Your task to perform on an android device: turn off sleep mode Image 0: 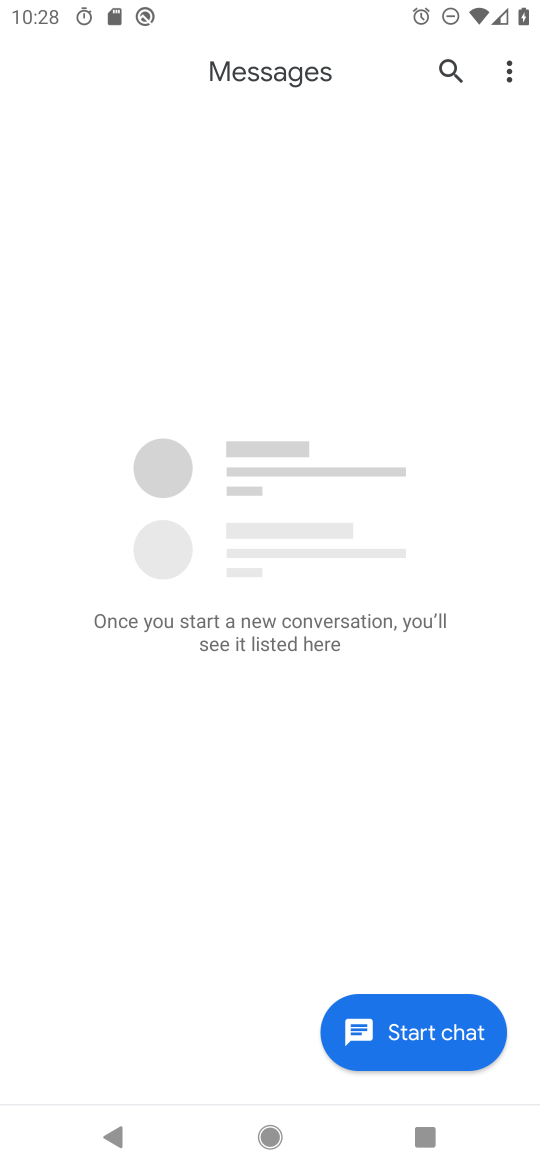
Step 0: press home button
Your task to perform on an android device: turn off sleep mode Image 1: 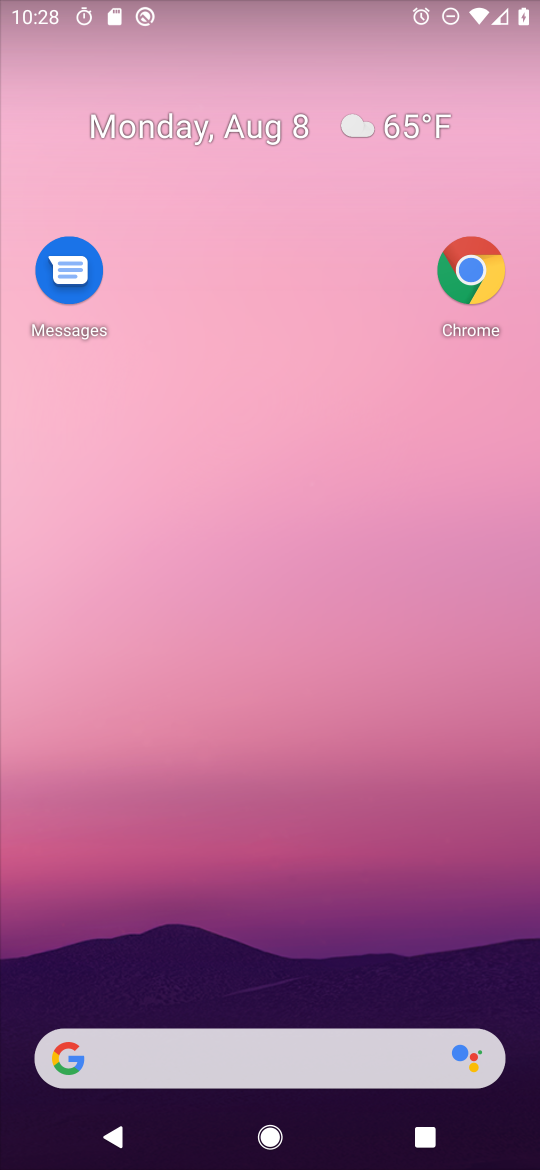
Step 1: drag from (245, 445) to (238, 343)
Your task to perform on an android device: turn off sleep mode Image 2: 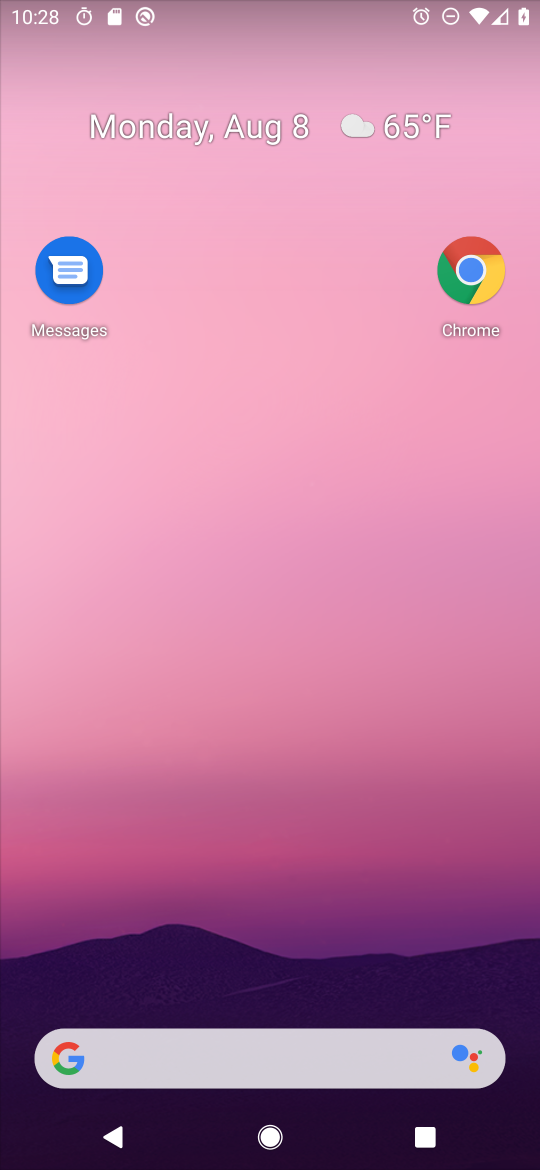
Step 2: drag from (319, 1017) to (412, 99)
Your task to perform on an android device: turn off sleep mode Image 3: 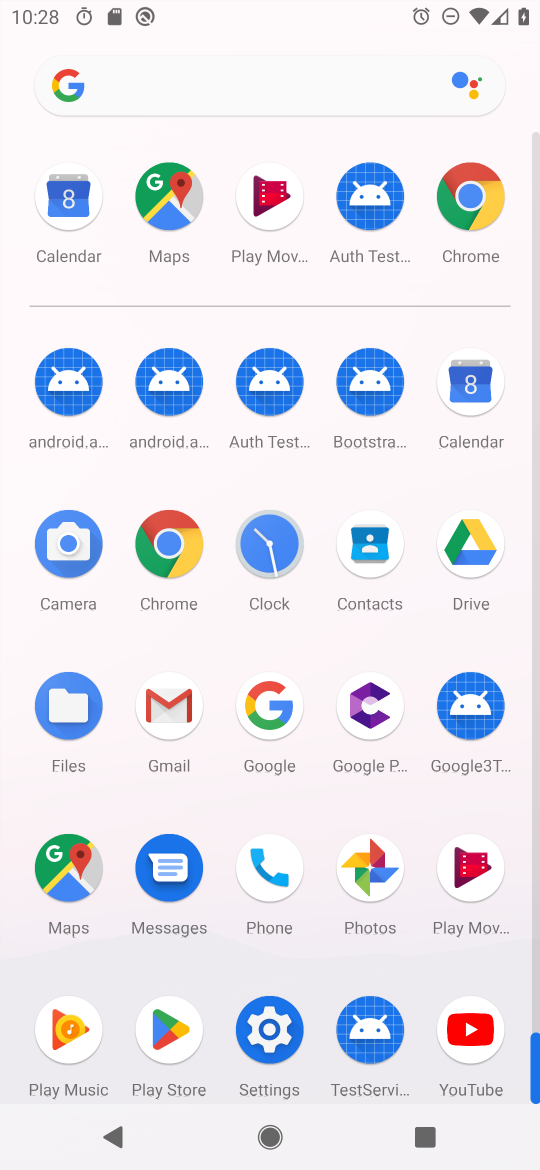
Step 3: click (265, 1027)
Your task to perform on an android device: turn off sleep mode Image 4: 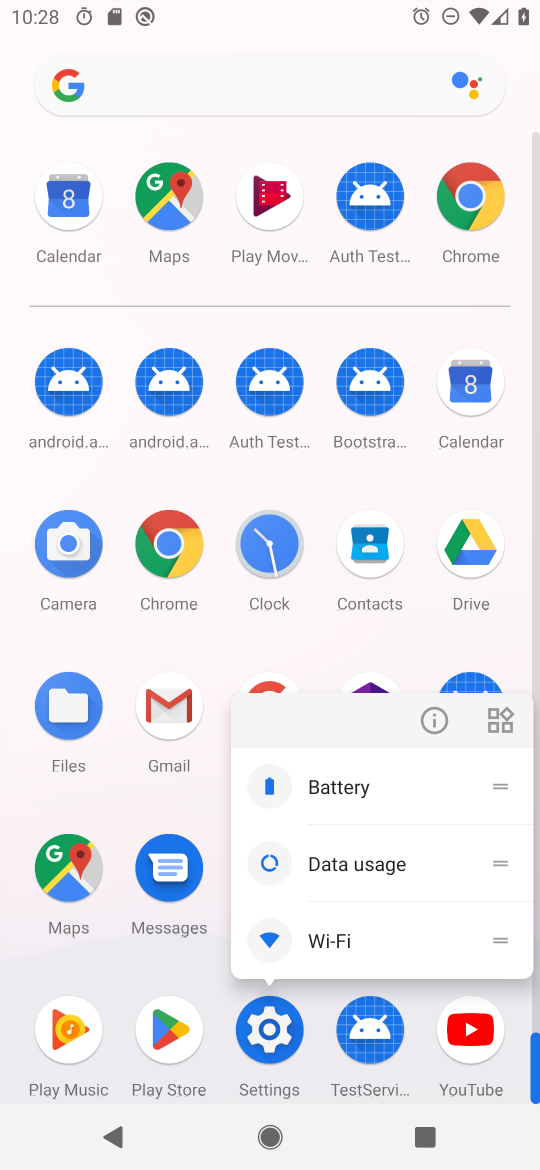
Step 4: click (435, 724)
Your task to perform on an android device: turn off sleep mode Image 5: 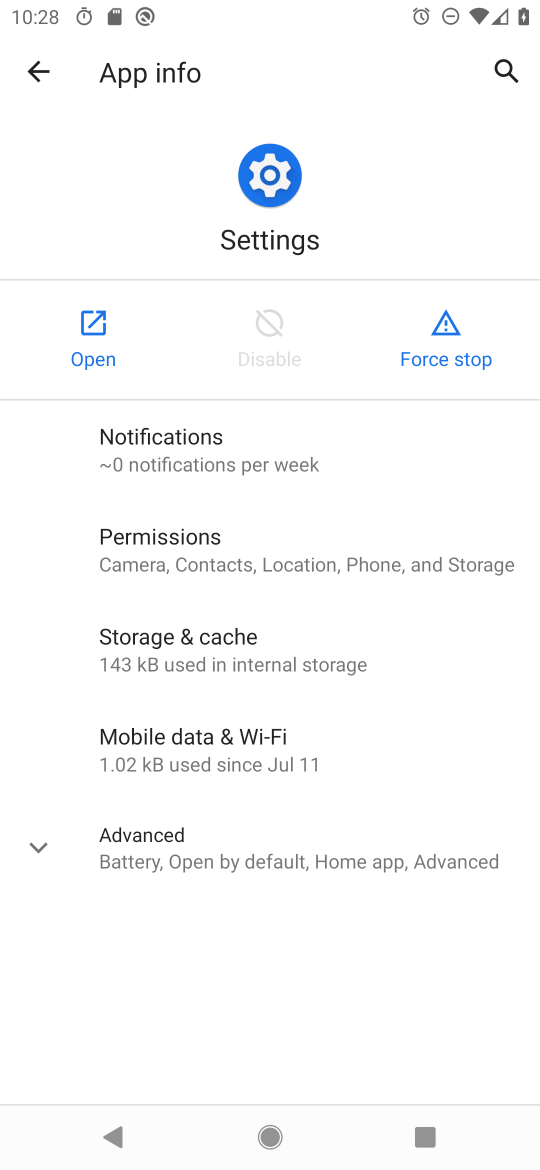
Step 5: click (103, 300)
Your task to perform on an android device: turn off sleep mode Image 6: 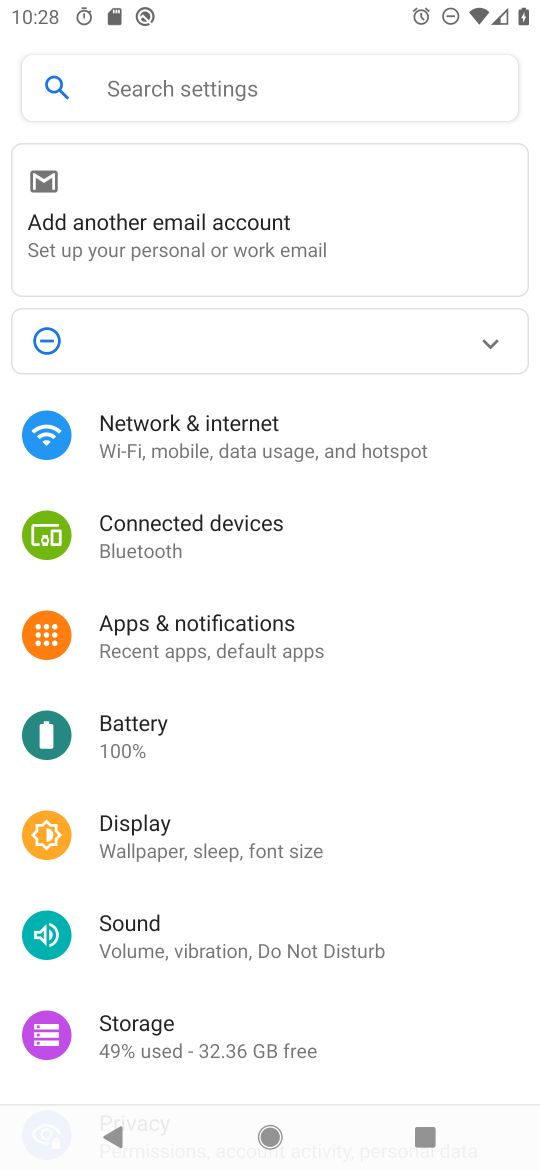
Step 6: drag from (254, 953) to (404, 324)
Your task to perform on an android device: turn off sleep mode Image 7: 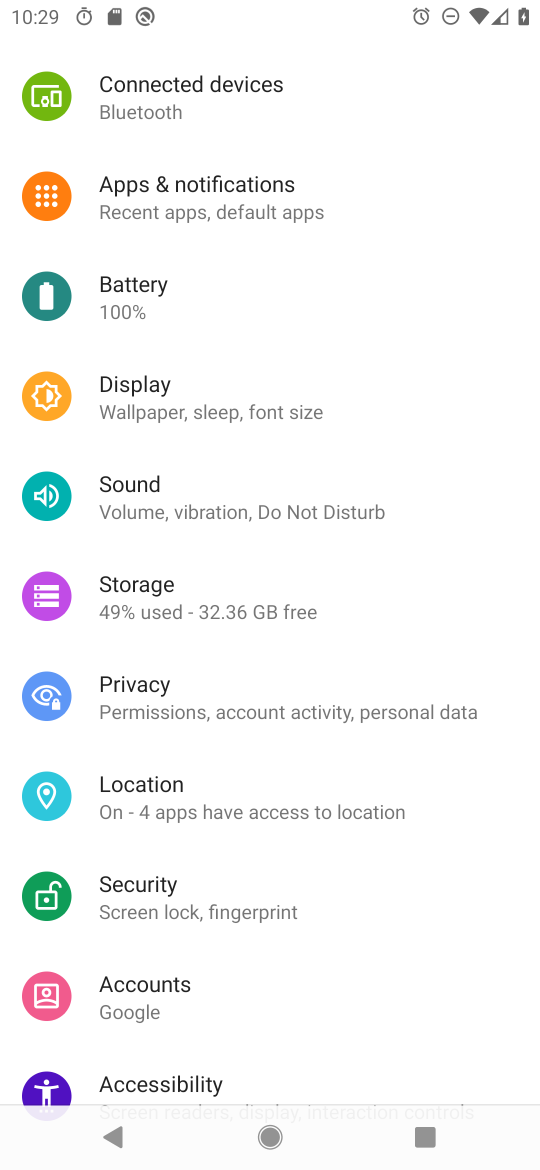
Step 7: drag from (252, 904) to (290, 576)
Your task to perform on an android device: turn off sleep mode Image 8: 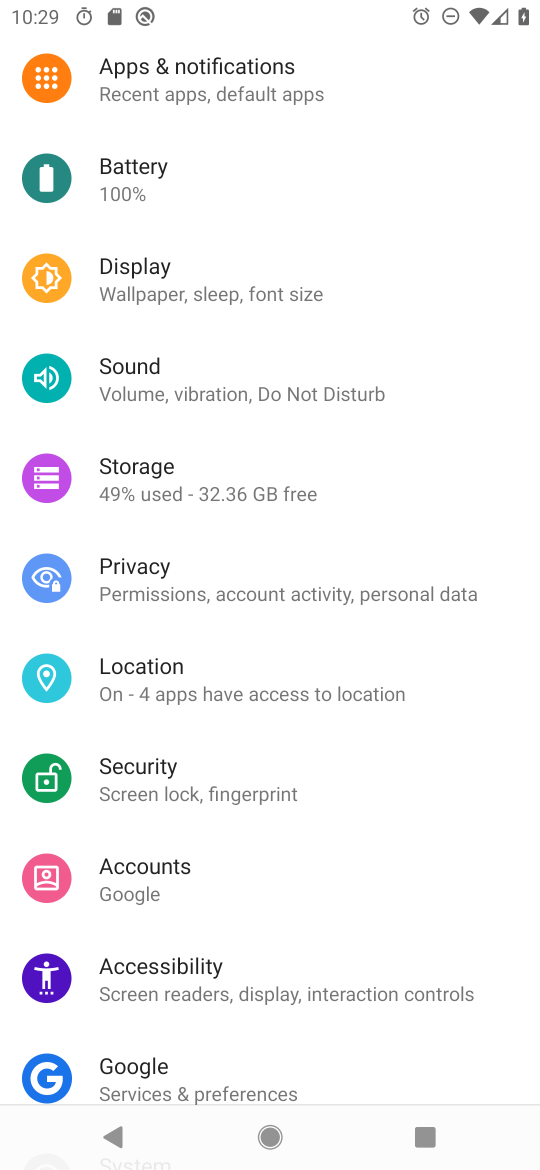
Step 8: click (188, 267)
Your task to perform on an android device: turn off sleep mode Image 9: 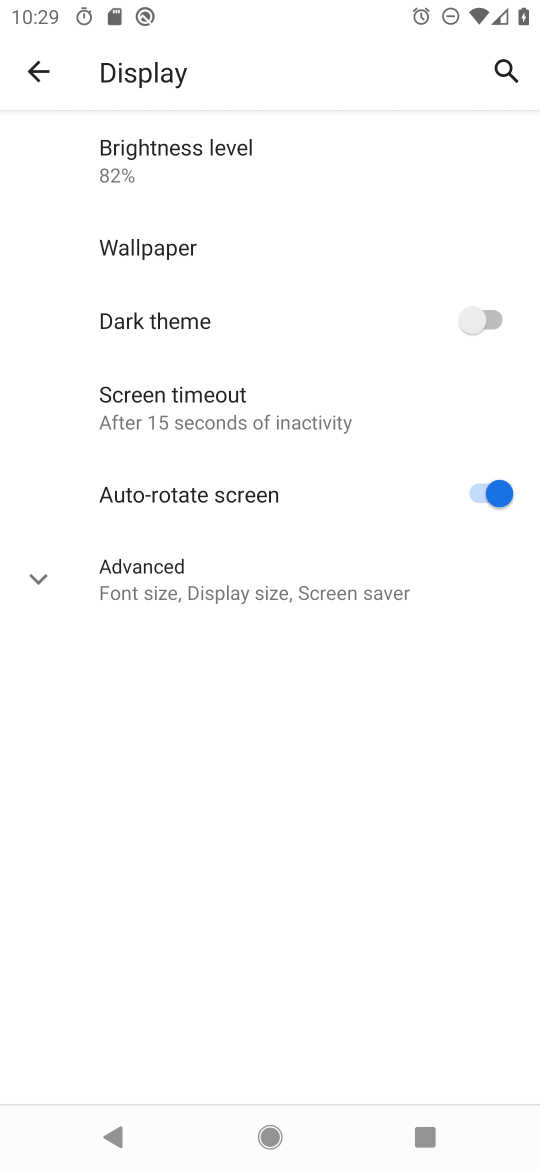
Step 9: click (216, 425)
Your task to perform on an android device: turn off sleep mode Image 10: 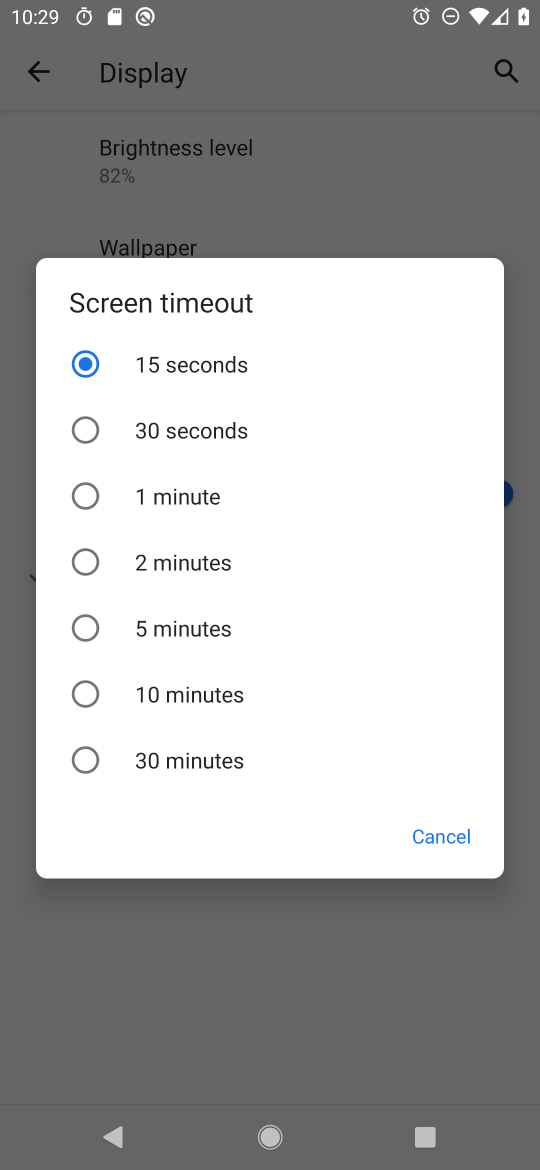
Step 10: click (88, 503)
Your task to perform on an android device: turn off sleep mode Image 11: 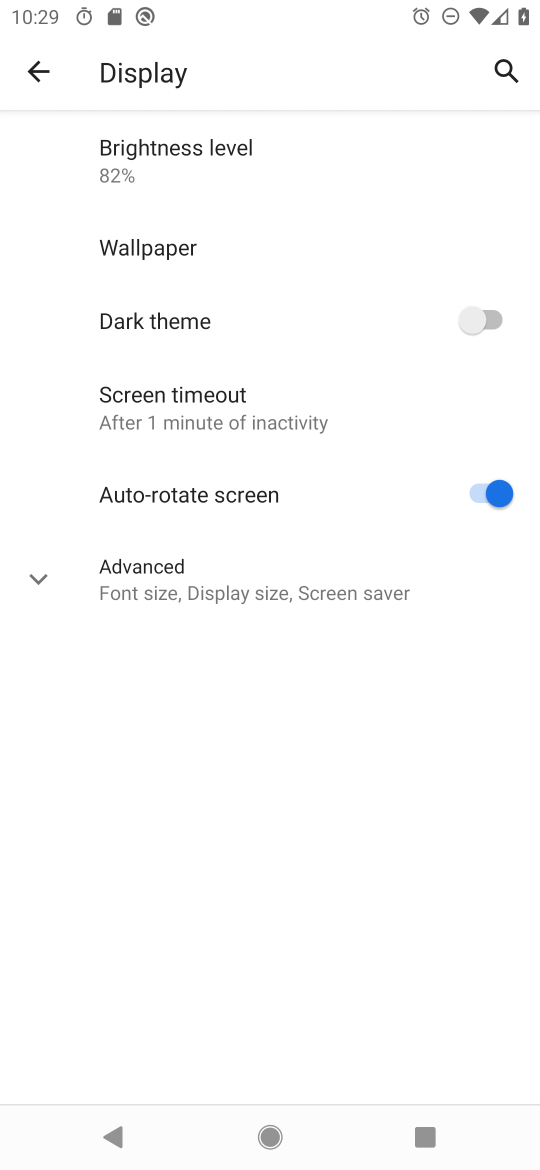
Step 11: task complete